Your task to perform on an android device: Show me the alarms in the clock app Image 0: 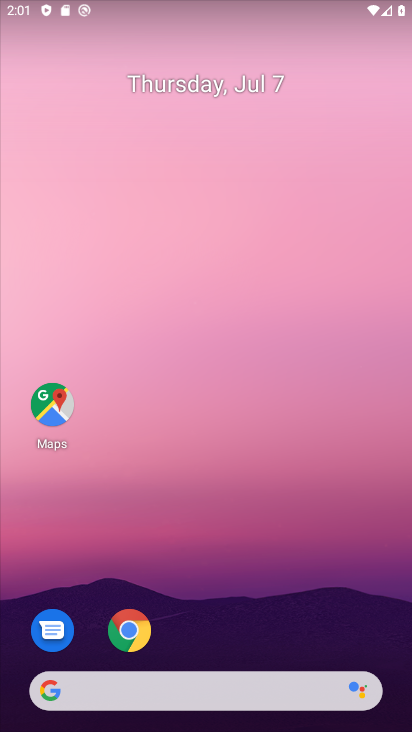
Step 0: drag from (212, 601) to (223, 229)
Your task to perform on an android device: Show me the alarms in the clock app Image 1: 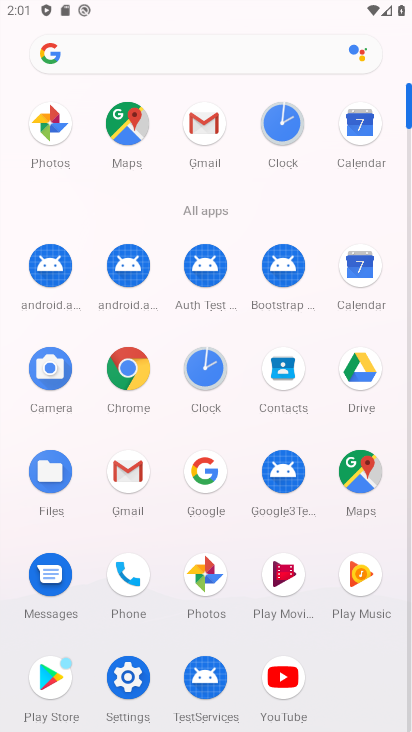
Step 1: click (209, 368)
Your task to perform on an android device: Show me the alarms in the clock app Image 2: 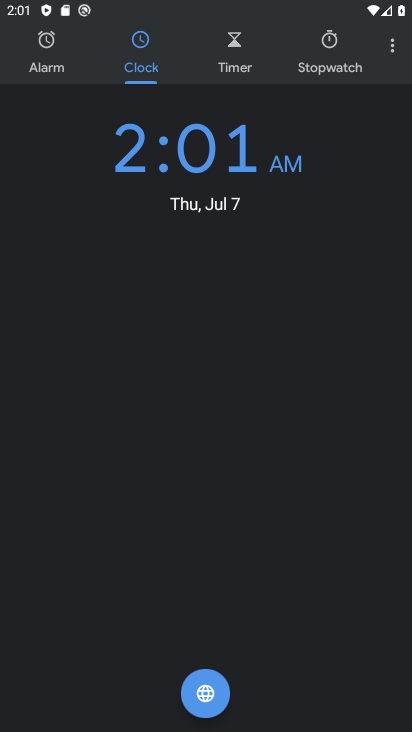
Step 2: click (45, 58)
Your task to perform on an android device: Show me the alarms in the clock app Image 3: 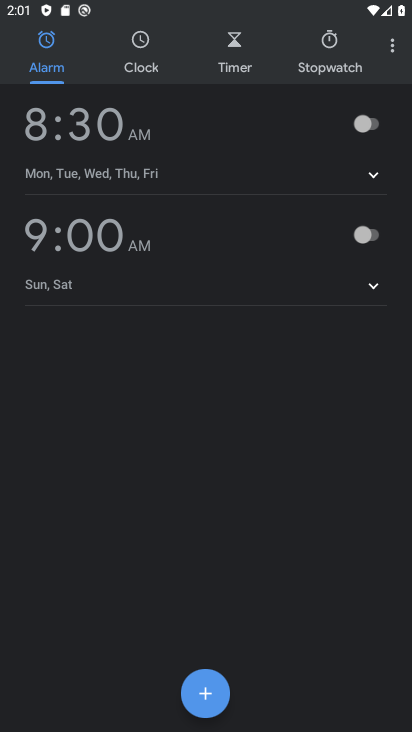
Step 3: task complete